Your task to perform on an android device: Open calendar and show me the second week of next month Image 0: 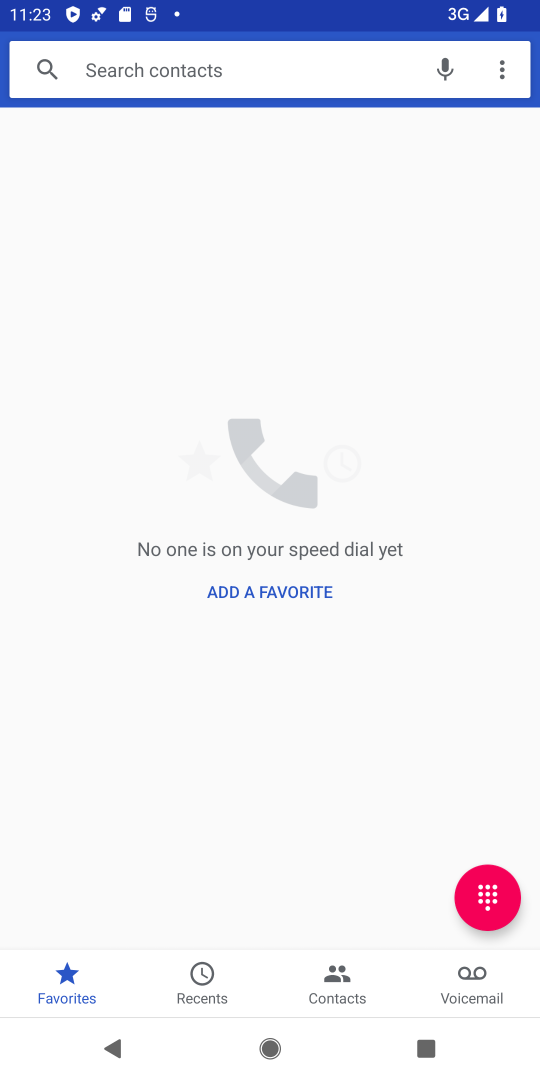
Step 0: press home button
Your task to perform on an android device: Open calendar and show me the second week of next month Image 1: 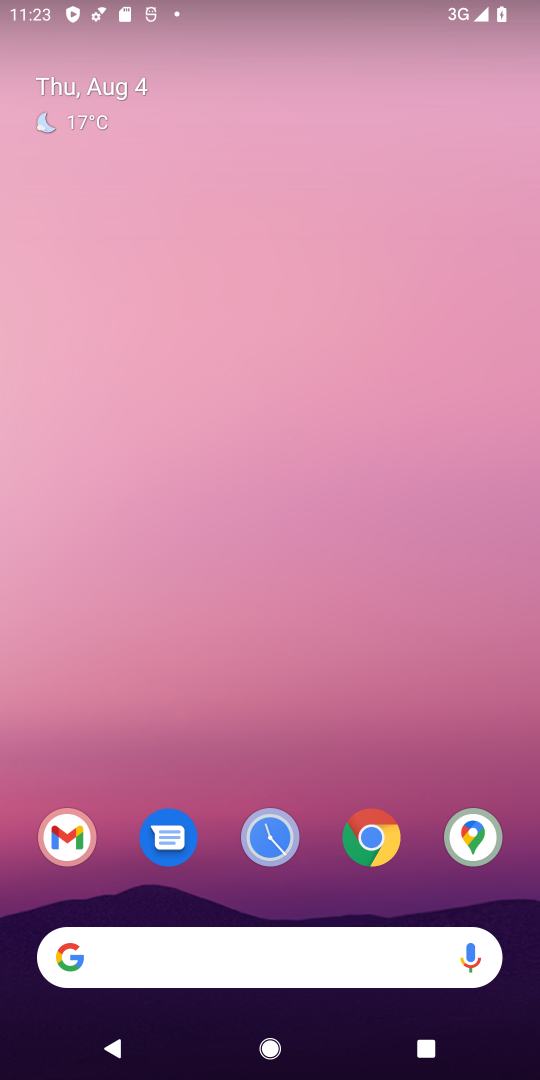
Step 1: drag from (423, 774) to (154, 116)
Your task to perform on an android device: Open calendar and show me the second week of next month Image 2: 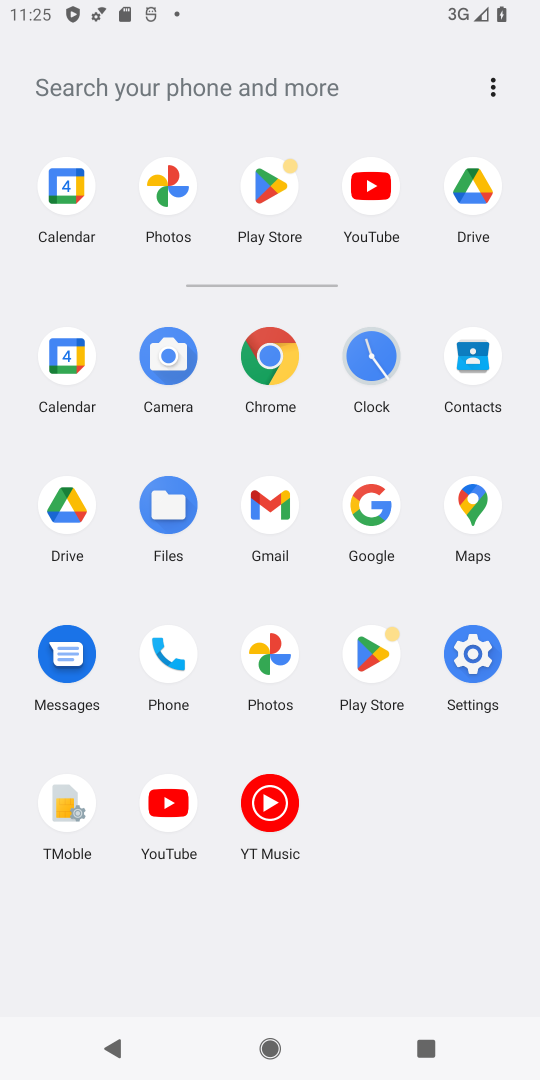
Step 2: click (65, 346)
Your task to perform on an android device: Open calendar and show me the second week of next month Image 3: 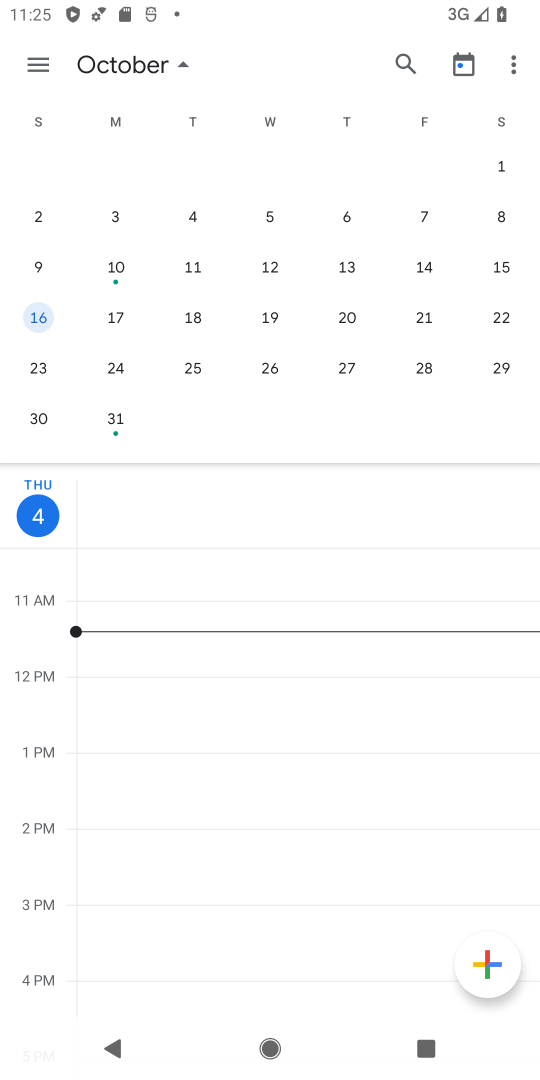
Step 3: drag from (456, 287) to (30, 248)
Your task to perform on an android device: Open calendar and show me the second week of next month Image 4: 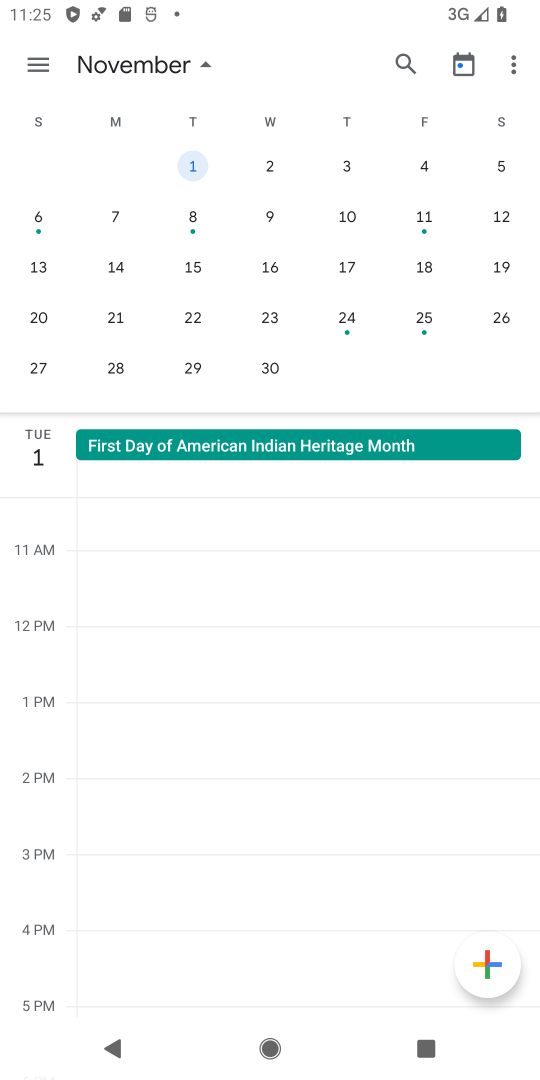
Step 4: click (27, 262)
Your task to perform on an android device: Open calendar and show me the second week of next month Image 5: 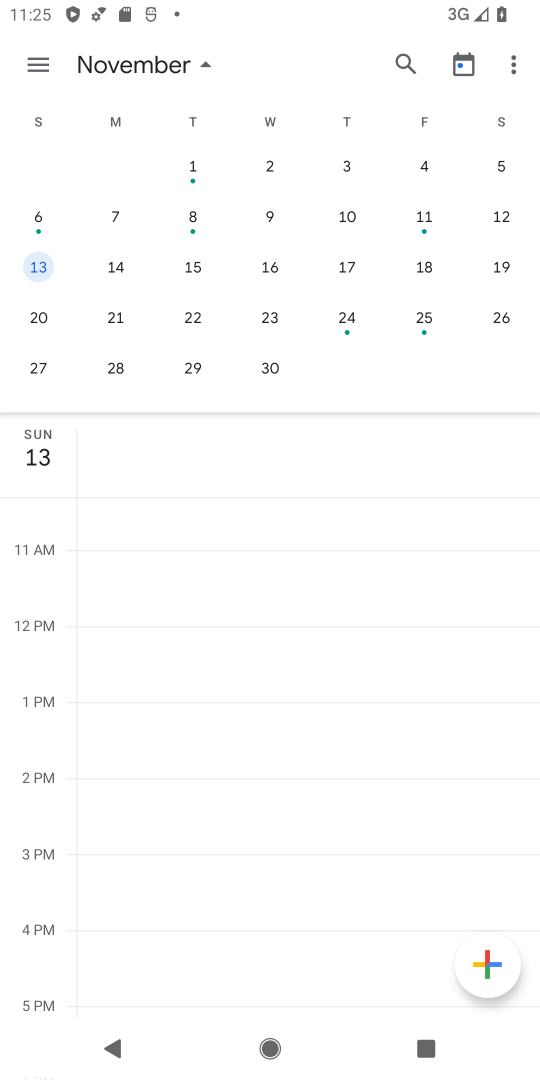
Step 5: task complete